Your task to perform on an android device: search for starred emails in the gmail app Image 0: 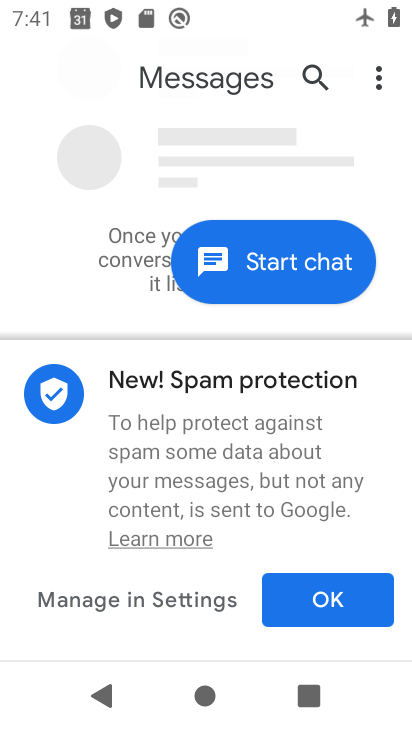
Step 0: press home button
Your task to perform on an android device: search for starred emails in the gmail app Image 1: 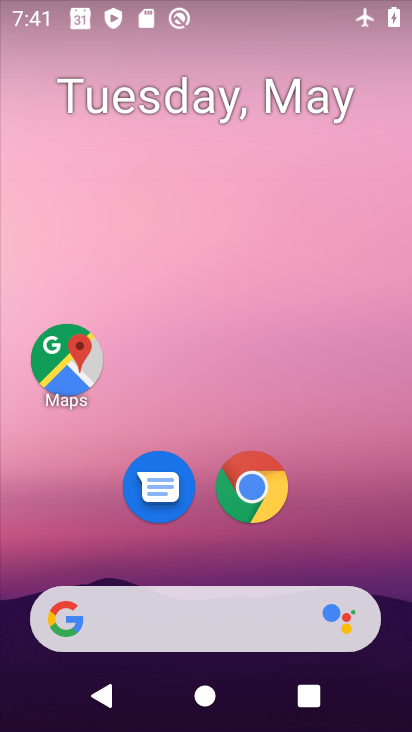
Step 1: drag from (373, 558) to (362, 132)
Your task to perform on an android device: search for starred emails in the gmail app Image 2: 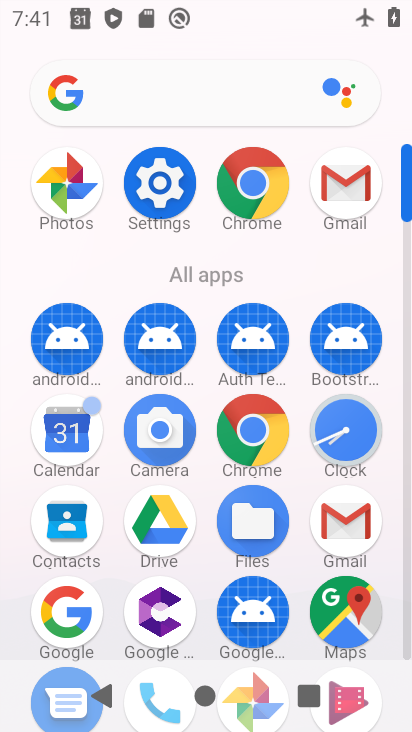
Step 2: click (350, 519)
Your task to perform on an android device: search for starred emails in the gmail app Image 3: 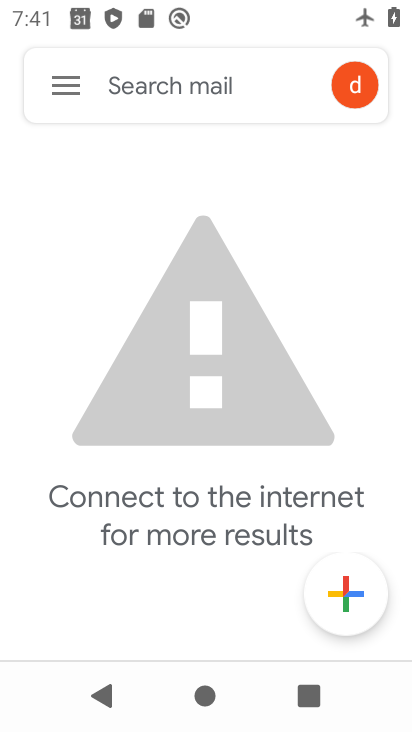
Step 3: click (68, 88)
Your task to perform on an android device: search for starred emails in the gmail app Image 4: 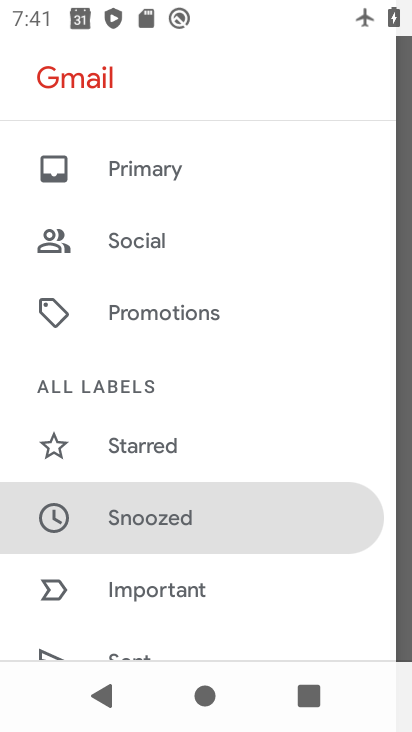
Step 4: drag from (339, 208) to (328, 353)
Your task to perform on an android device: search for starred emails in the gmail app Image 5: 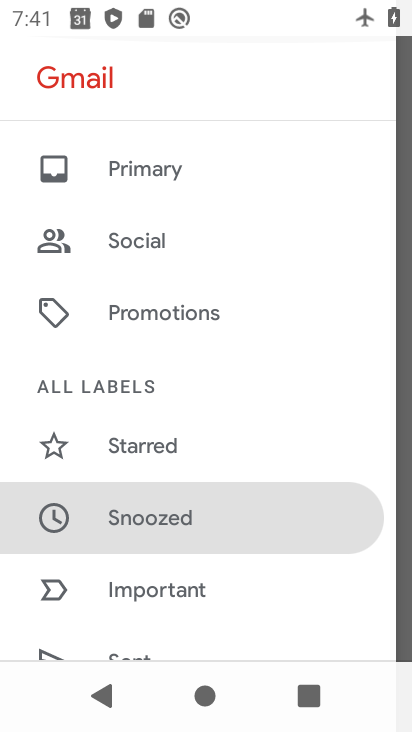
Step 5: drag from (326, 395) to (327, 255)
Your task to perform on an android device: search for starred emails in the gmail app Image 6: 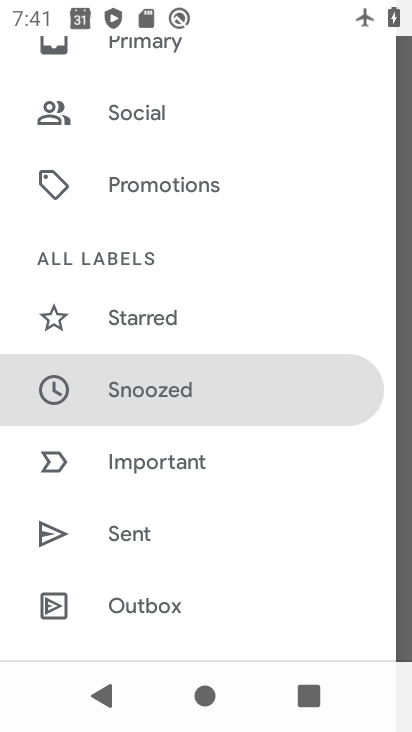
Step 6: drag from (322, 465) to (340, 355)
Your task to perform on an android device: search for starred emails in the gmail app Image 7: 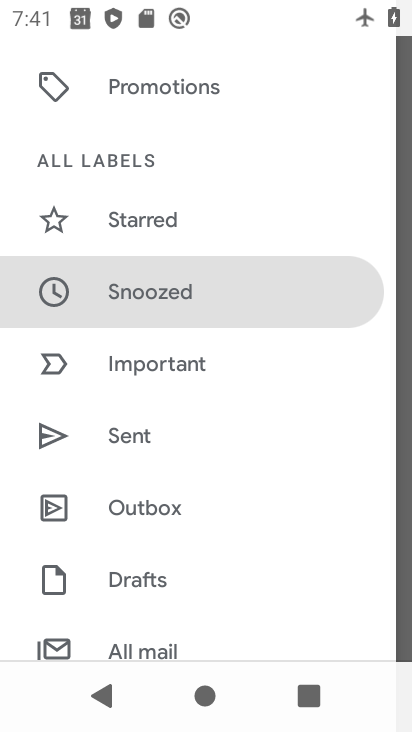
Step 7: click (196, 219)
Your task to perform on an android device: search for starred emails in the gmail app Image 8: 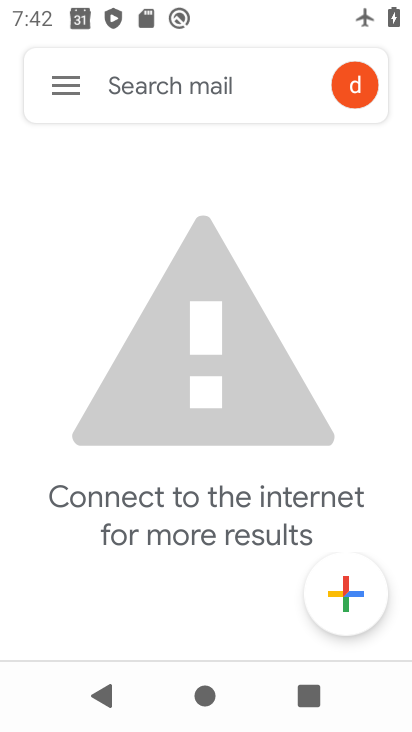
Step 8: task complete